Your task to perform on an android device: Go to accessibility settings Image 0: 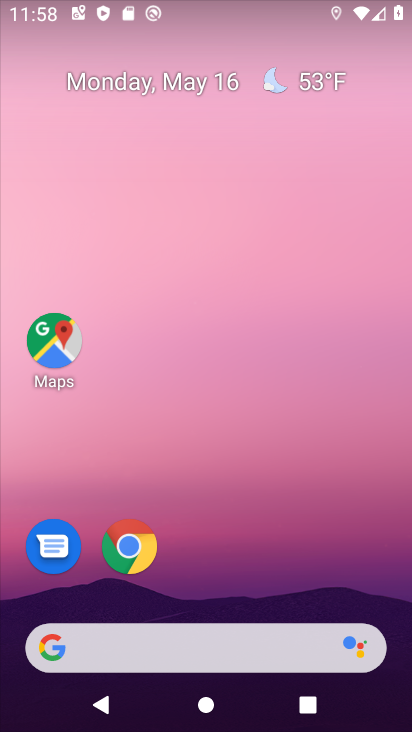
Step 0: drag from (259, 540) to (271, 88)
Your task to perform on an android device: Go to accessibility settings Image 1: 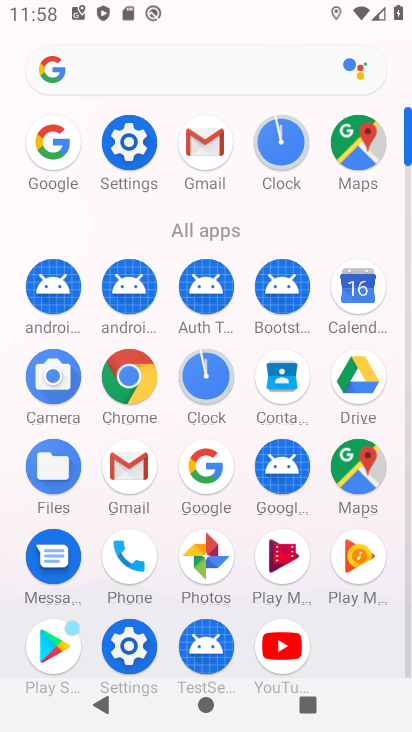
Step 1: click (134, 138)
Your task to perform on an android device: Go to accessibility settings Image 2: 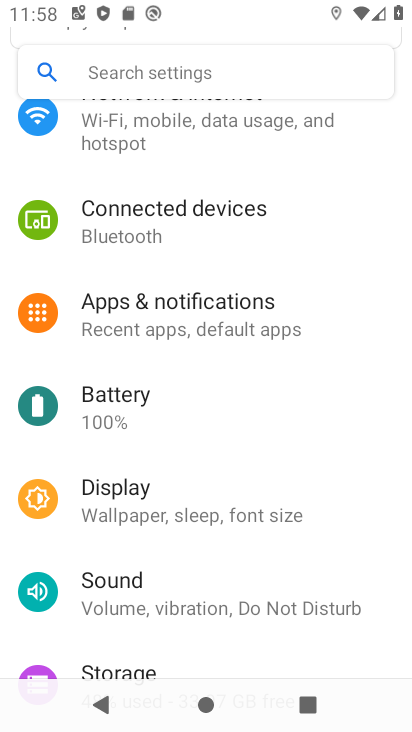
Step 2: drag from (224, 572) to (200, 137)
Your task to perform on an android device: Go to accessibility settings Image 3: 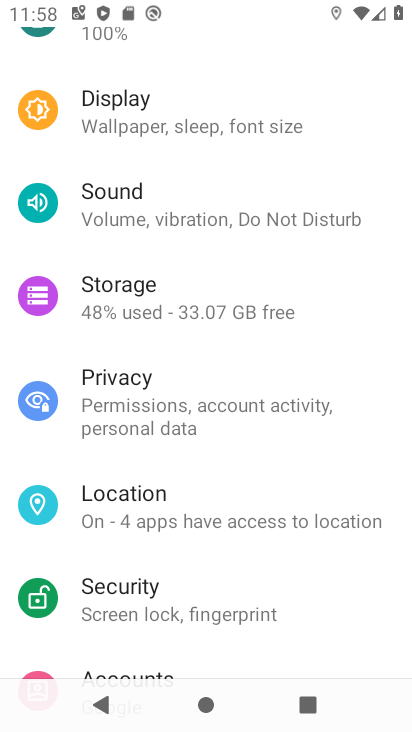
Step 3: drag from (204, 592) to (185, 240)
Your task to perform on an android device: Go to accessibility settings Image 4: 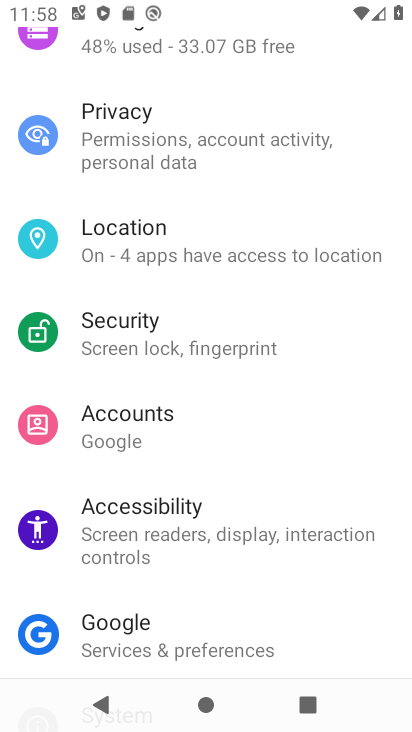
Step 4: click (169, 514)
Your task to perform on an android device: Go to accessibility settings Image 5: 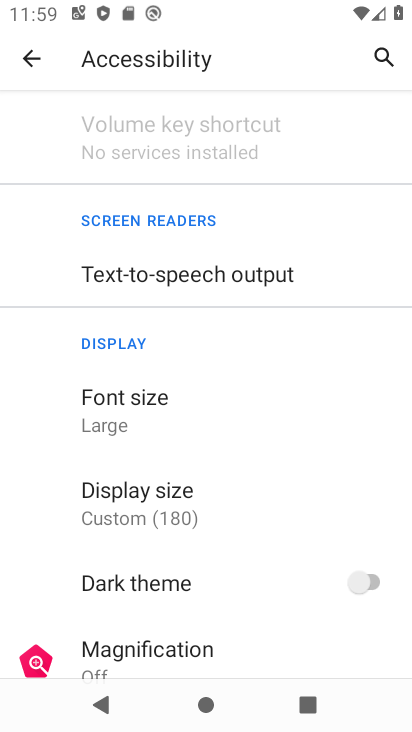
Step 5: task complete